Your task to perform on an android device: Go to Maps Image 0: 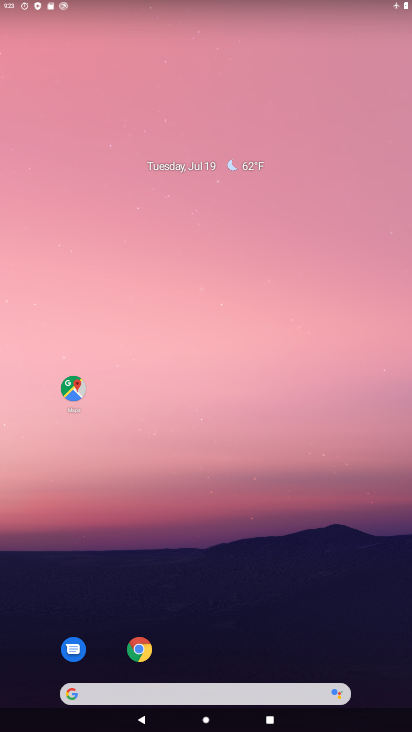
Step 0: click (71, 397)
Your task to perform on an android device: Go to Maps Image 1: 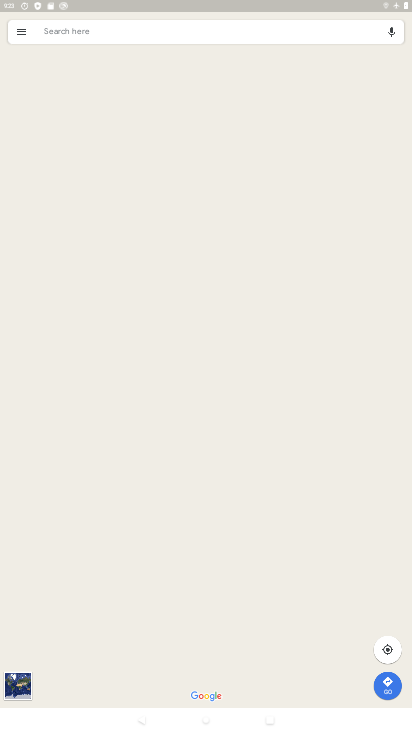
Step 1: task complete